Your task to perform on an android device: Set an alarm for 8pm Image 0: 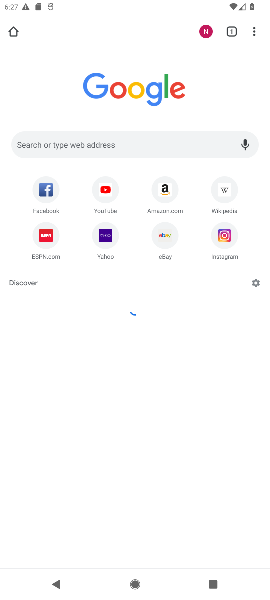
Step 0: press back button
Your task to perform on an android device: Set an alarm for 8pm Image 1: 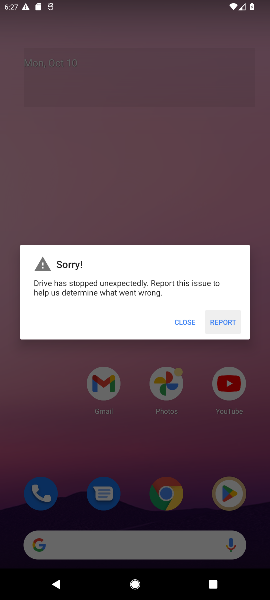
Step 1: press back button
Your task to perform on an android device: Set an alarm for 8pm Image 2: 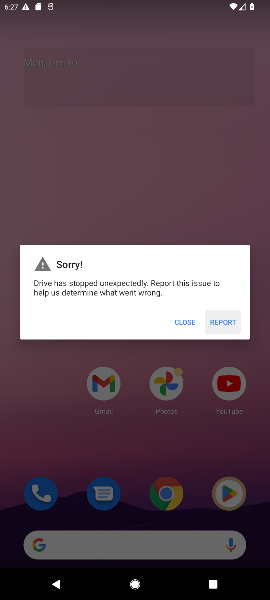
Step 2: press back button
Your task to perform on an android device: Set an alarm for 8pm Image 3: 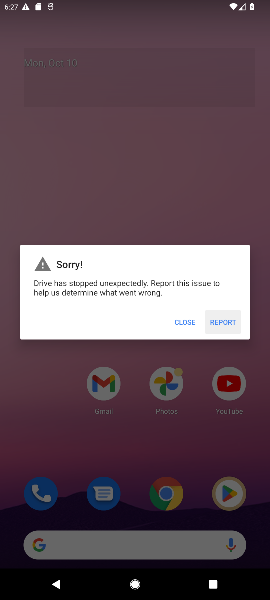
Step 3: click (192, 320)
Your task to perform on an android device: Set an alarm for 8pm Image 4: 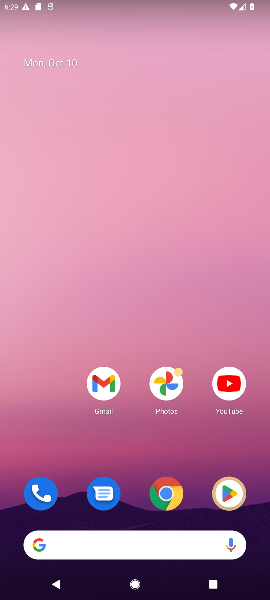
Step 4: click (116, 538)
Your task to perform on an android device: Set an alarm for 8pm Image 5: 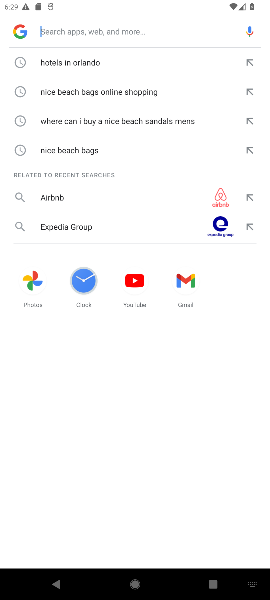
Step 5: press home button
Your task to perform on an android device: Set an alarm for 8pm Image 6: 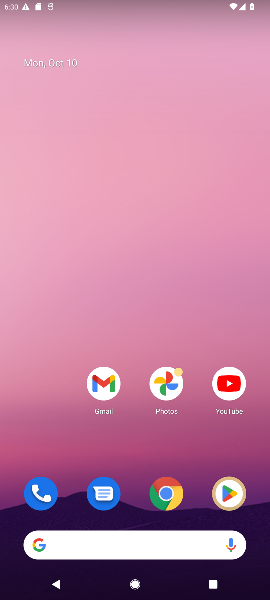
Step 6: drag from (129, 488) to (154, 0)
Your task to perform on an android device: Set an alarm for 8pm Image 7: 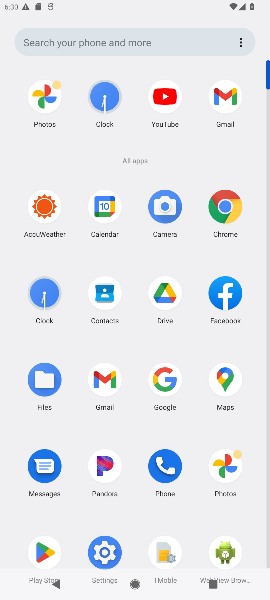
Step 7: click (106, 105)
Your task to perform on an android device: Set an alarm for 8pm Image 8: 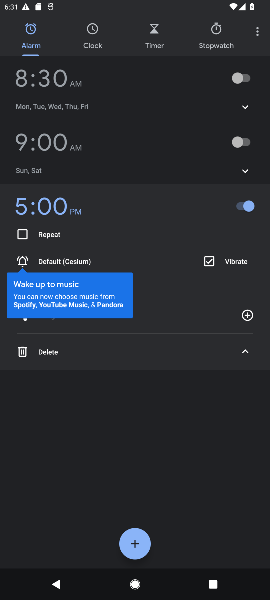
Step 8: click (134, 545)
Your task to perform on an android device: Set an alarm for 8pm Image 9: 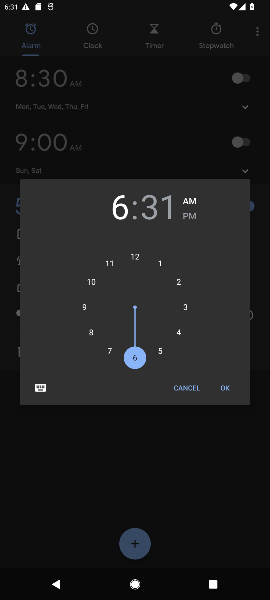
Step 9: click (96, 331)
Your task to perform on an android device: Set an alarm for 8pm Image 10: 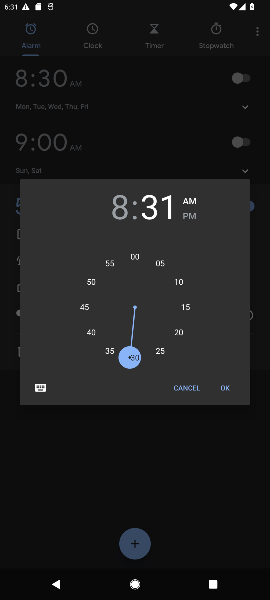
Step 10: click (136, 258)
Your task to perform on an android device: Set an alarm for 8pm Image 11: 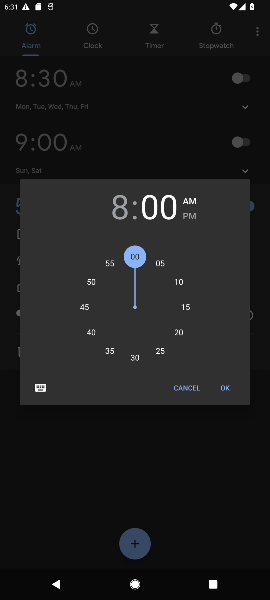
Step 11: click (192, 220)
Your task to perform on an android device: Set an alarm for 8pm Image 12: 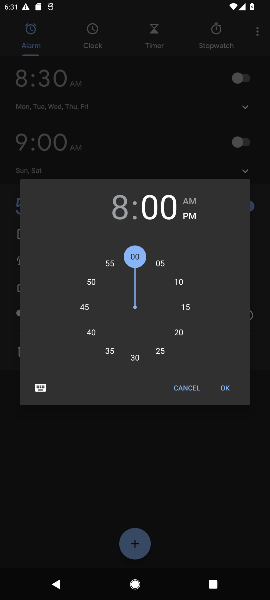
Step 12: click (223, 386)
Your task to perform on an android device: Set an alarm for 8pm Image 13: 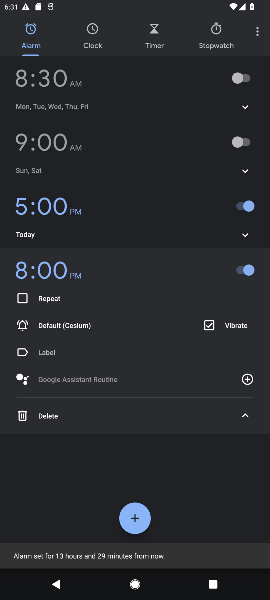
Step 13: task complete